Your task to perform on an android device: What's the latest video from GameSpot? Image 0: 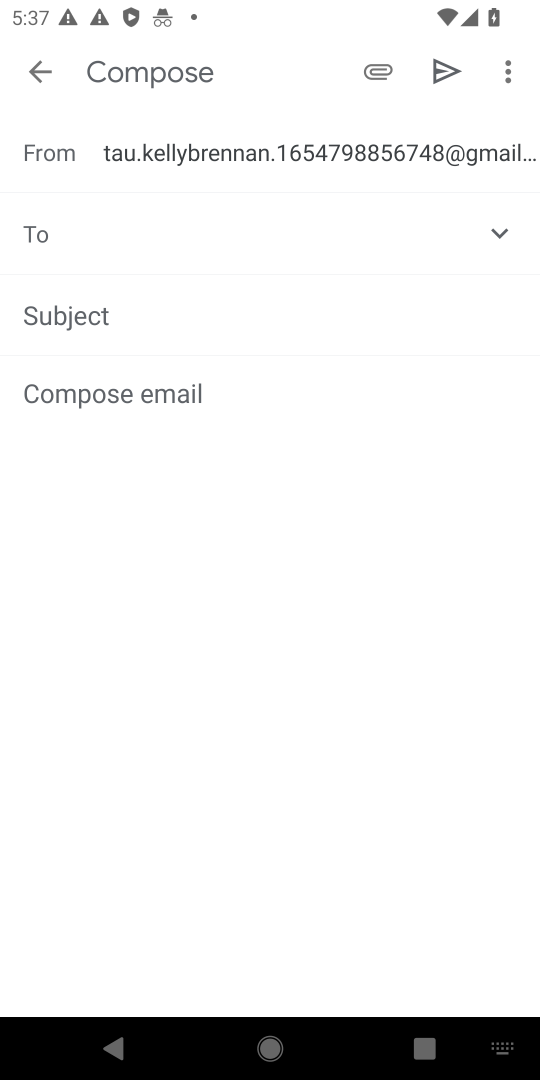
Step 0: press home button
Your task to perform on an android device: What's the latest video from GameSpot? Image 1: 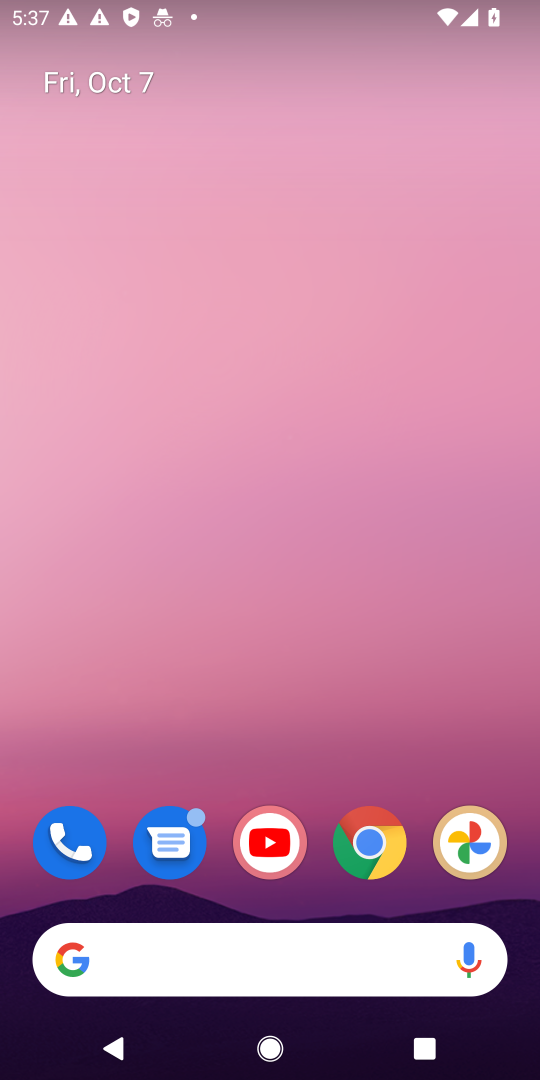
Step 1: click (248, 972)
Your task to perform on an android device: What's the latest video from GameSpot? Image 2: 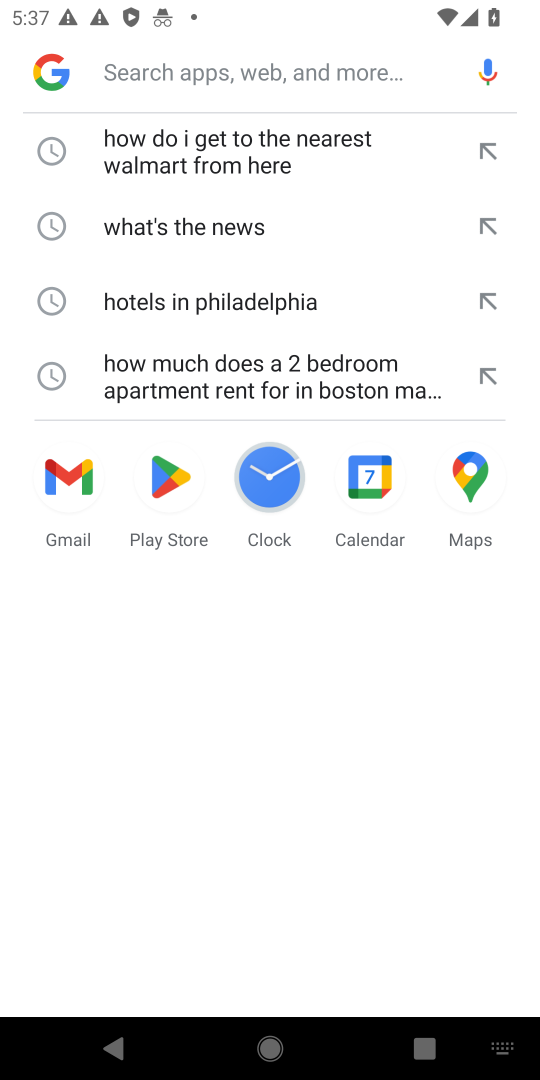
Step 2: click (187, 61)
Your task to perform on an android device: What's the latest video from GameSpot? Image 3: 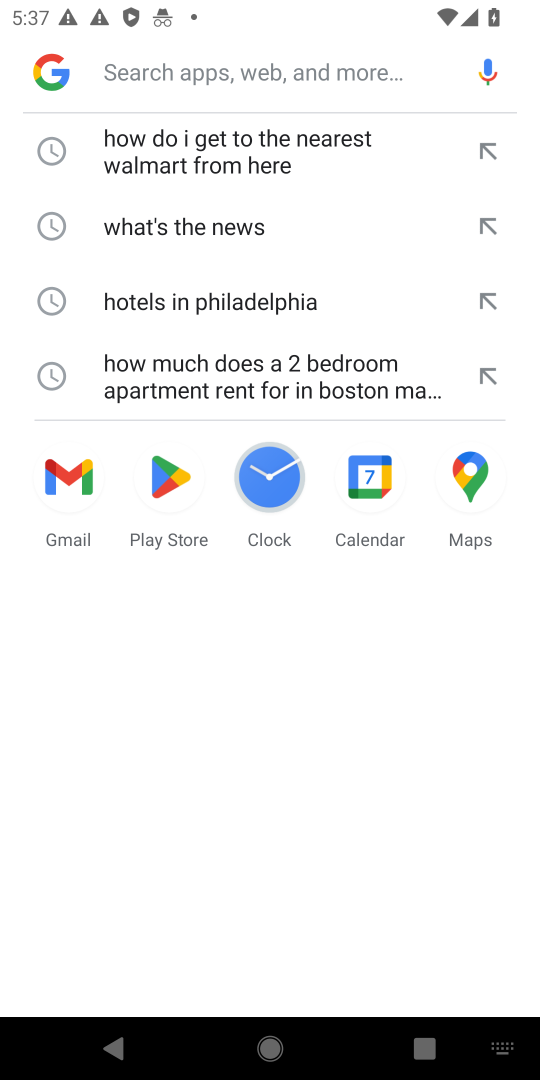
Step 3: type "What's the latest video from GameSpot"
Your task to perform on an android device: What's the latest video from GameSpot? Image 4: 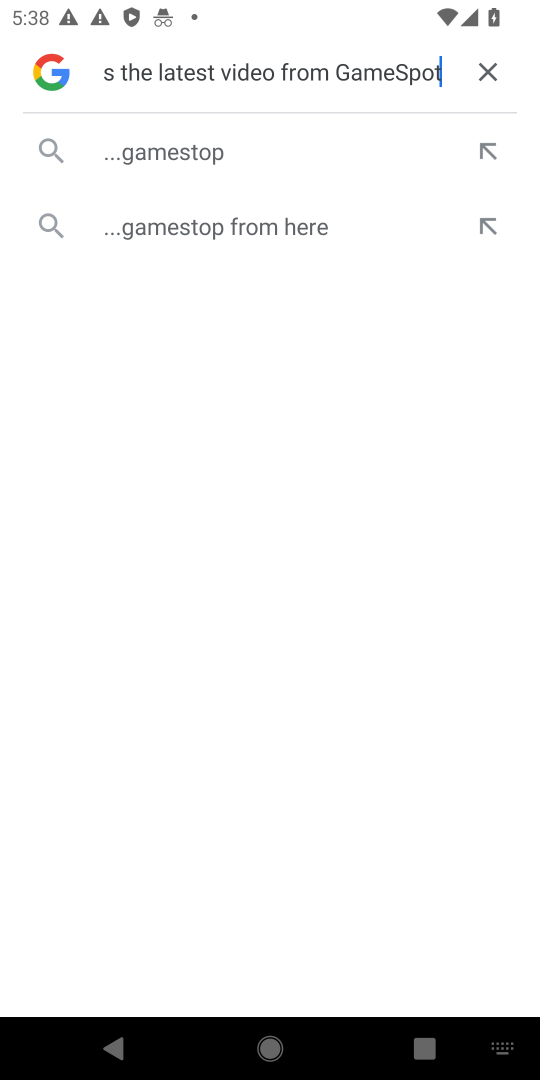
Step 4: click (193, 145)
Your task to perform on an android device: What's the latest video from GameSpot? Image 5: 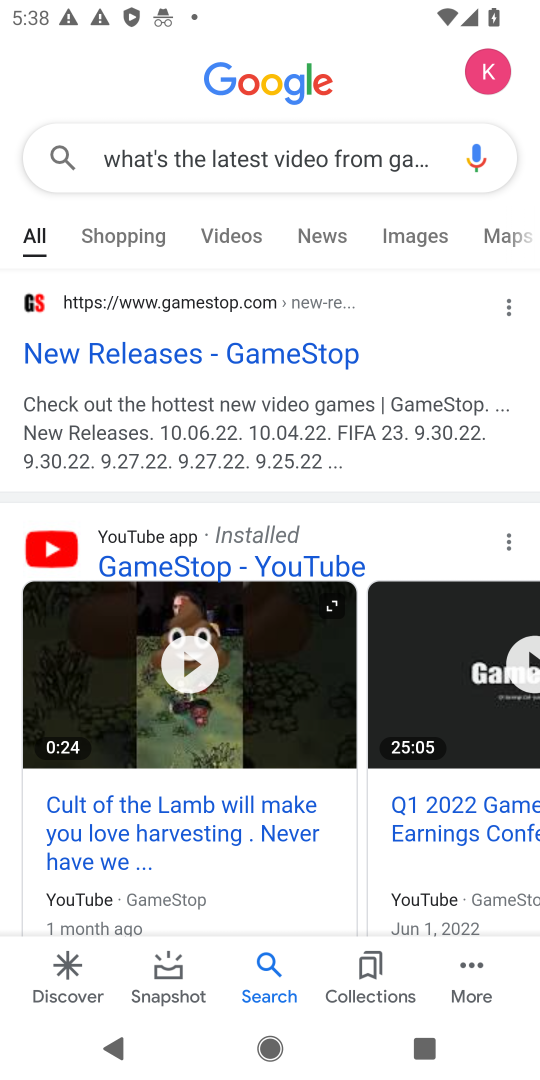
Step 5: task complete